Your task to perform on an android device: turn on translation in the chrome app Image 0: 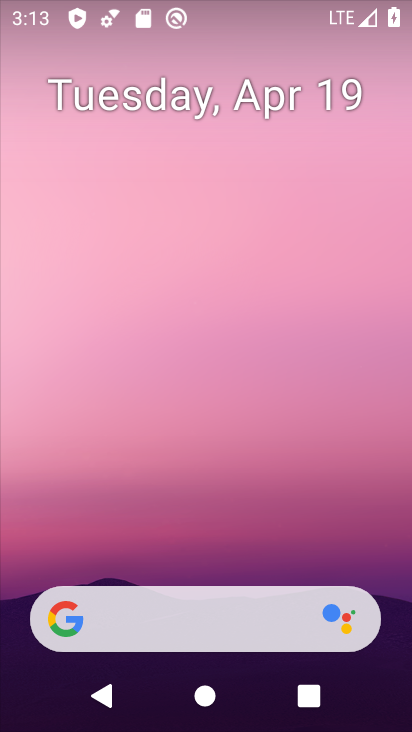
Step 0: drag from (210, 518) to (244, 25)
Your task to perform on an android device: turn on translation in the chrome app Image 1: 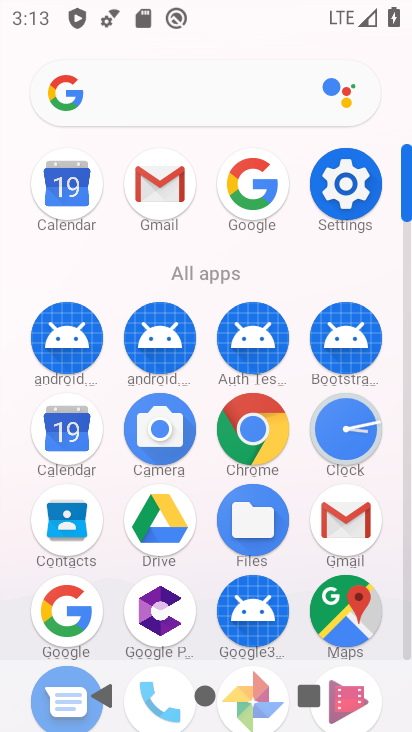
Step 1: click (253, 427)
Your task to perform on an android device: turn on translation in the chrome app Image 2: 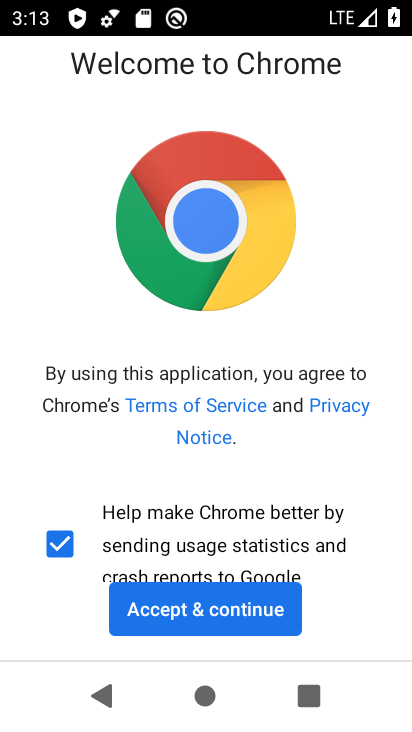
Step 2: click (200, 605)
Your task to perform on an android device: turn on translation in the chrome app Image 3: 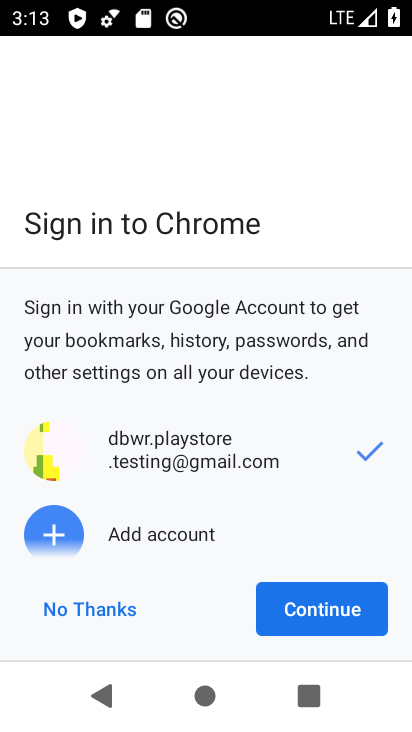
Step 3: click (304, 604)
Your task to perform on an android device: turn on translation in the chrome app Image 4: 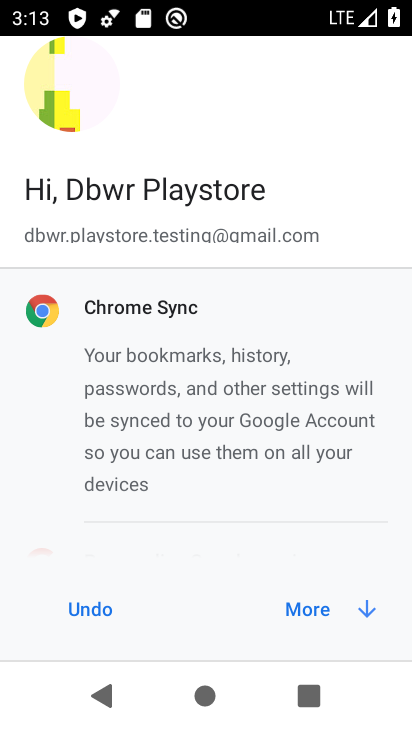
Step 4: click (304, 604)
Your task to perform on an android device: turn on translation in the chrome app Image 5: 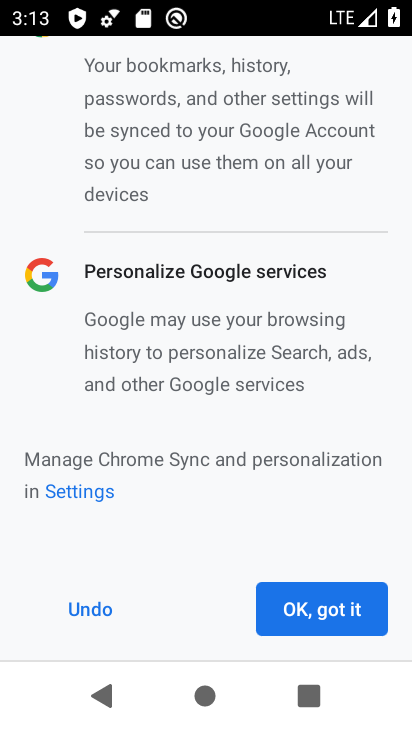
Step 5: click (304, 604)
Your task to perform on an android device: turn on translation in the chrome app Image 6: 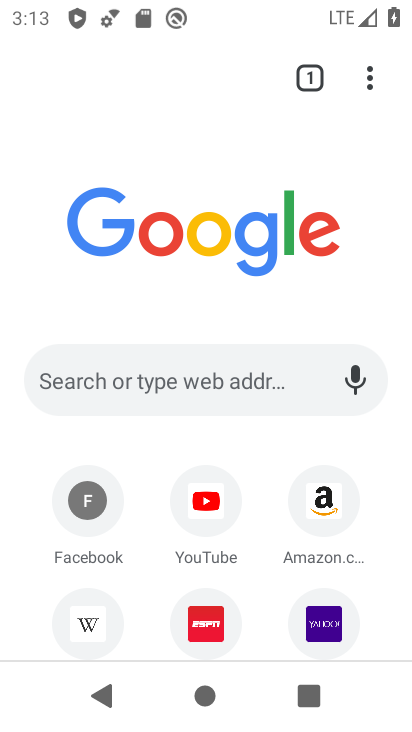
Step 6: click (372, 78)
Your task to perform on an android device: turn on translation in the chrome app Image 7: 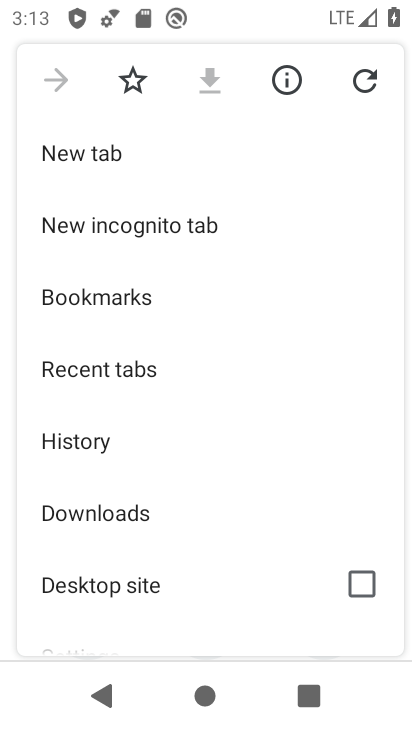
Step 7: drag from (172, 580) to (218, 424)
Your task to perform on an android device: turn on translation in the chrome app Image 8: 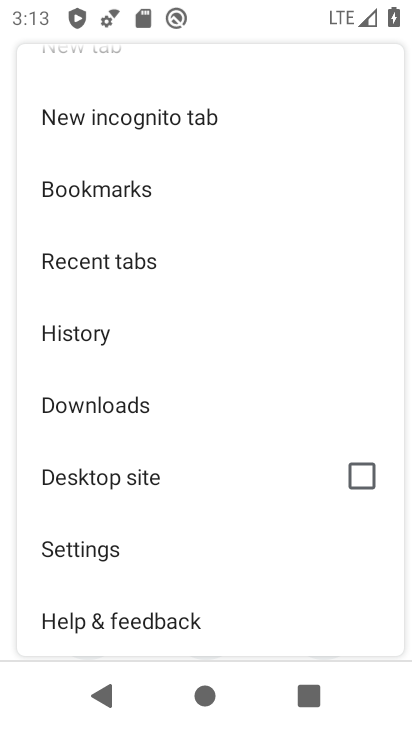
Step 8: click (98, 551)
Your task to perform on an android device: turn on translation in the chrome app Image 9: 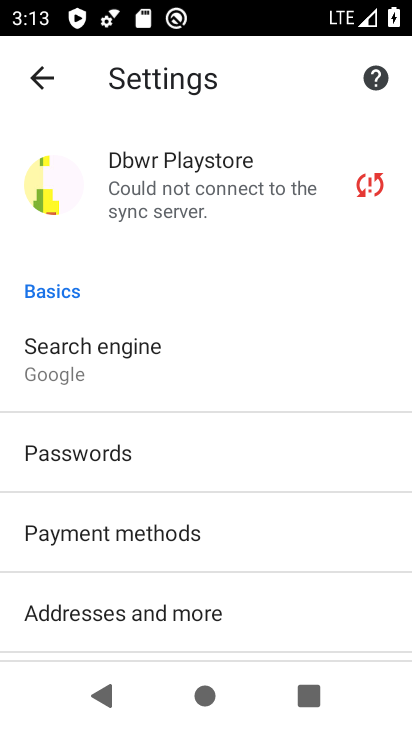
Step 9: drag from (212, 593) to (288, 492)
Your task to perform on an android device: turn on translation in the chrome app Image 10: 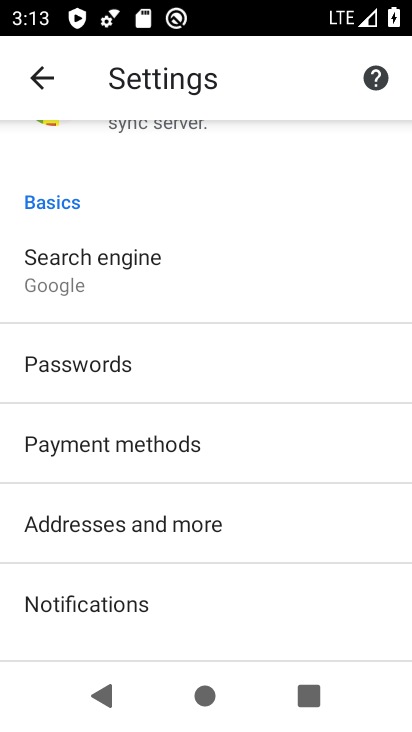
Step 10: drag from (220, 588) to (248, 463)
Your task to perform on an android device: turn on translation in the chrome app Image 11: 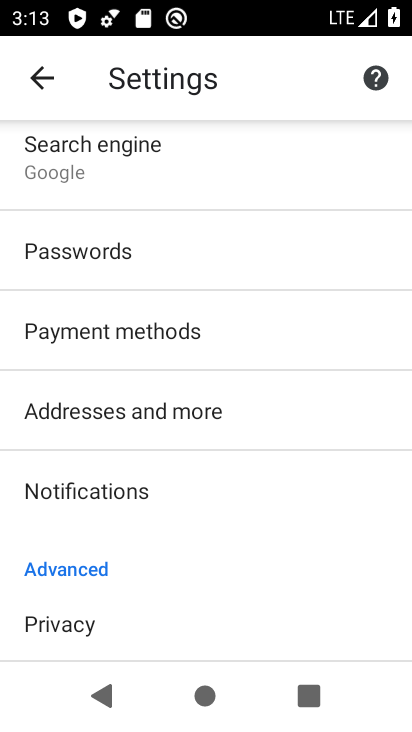
Step 11: drag from (199, 566) to (234, 462)
Your task to perform on an android device: turn on translation in the chrome app Image 12: 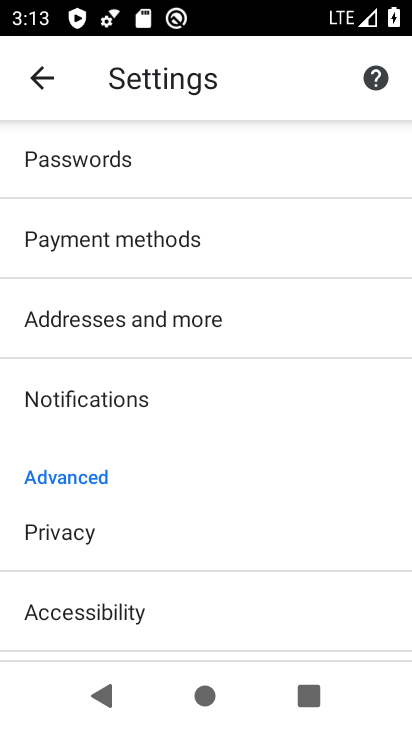
Step 12: drag from (191, 599) to (254, 491)
Your task to perform on an android device: turn on translation in the chrome app Image 13: 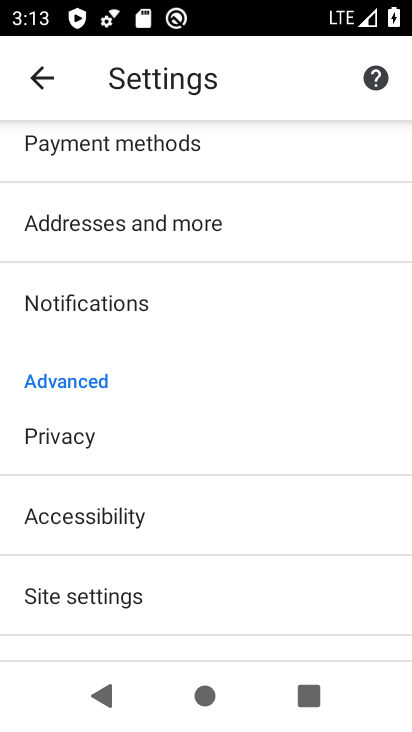
Step 13: drag from (172, 593) to (248, 483)
Your task to perform on an android device: turn on translation in the chrome app Image 14: 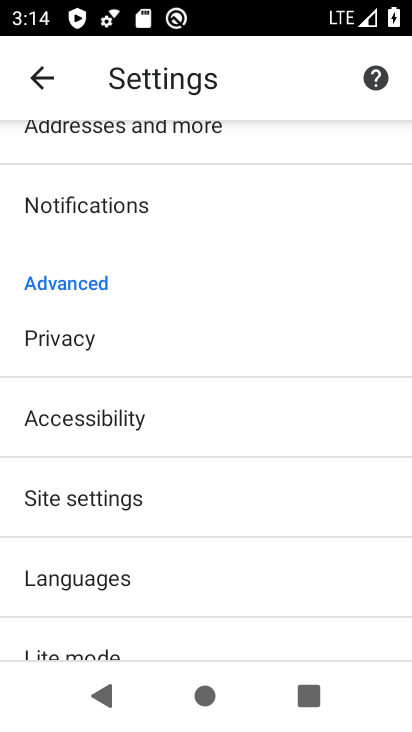
Step 14: click (109, 579)
Your task to perform on an android device: turn on translation in the chrome app Image 15: 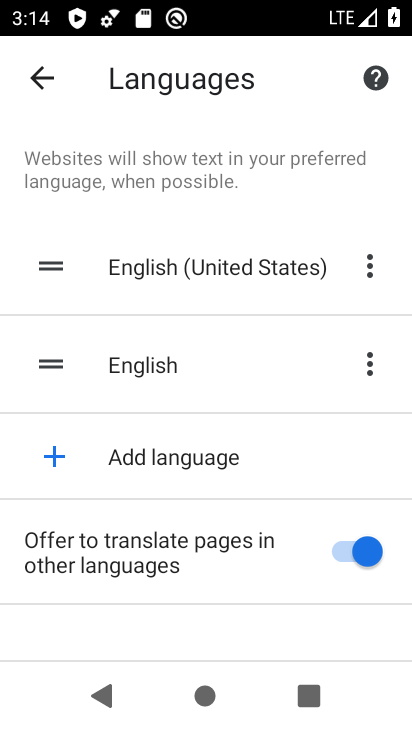
Step 15: task complete